Your task to perform on an android device: change the clock display to analog Image 0: 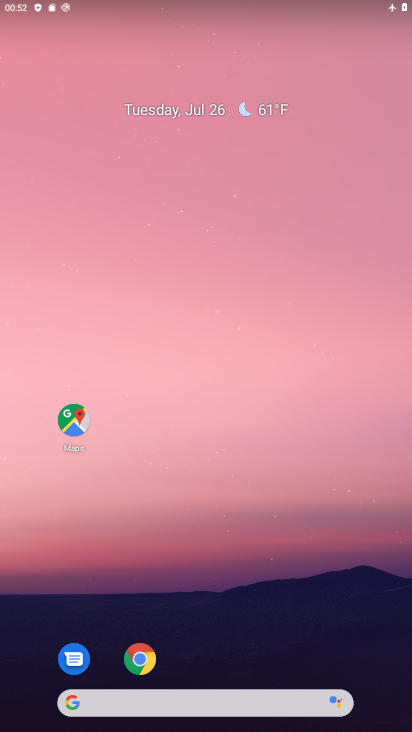
Step 0: drag from (224, 610) to (128, 0)
Your task to perform on an android device: change the clock display to analog Image 1: 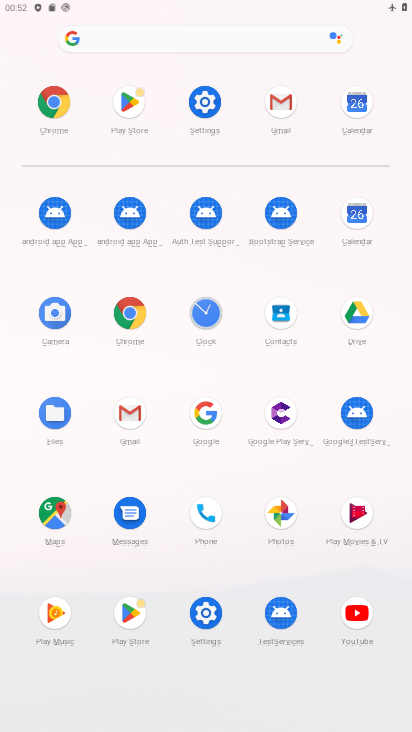
Step 1: click (208, 314)
Your task to perform on an android device: change the clock display to analog Image 2: 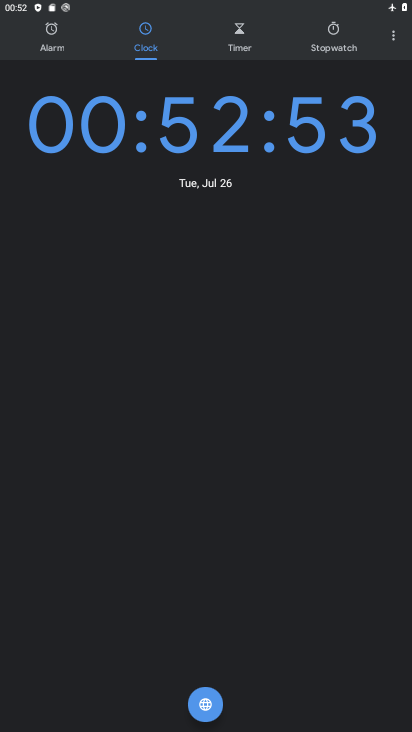
Step 2: click (401, 35)
Your task to perform on an android device: change the clock display to analog Image 3: 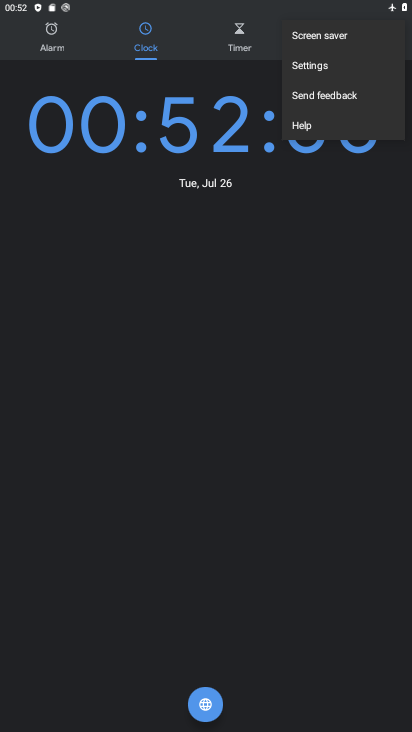
Step 3: click (314, 61)
Your task to perform on an android device: change the clock display to analog Image 4: 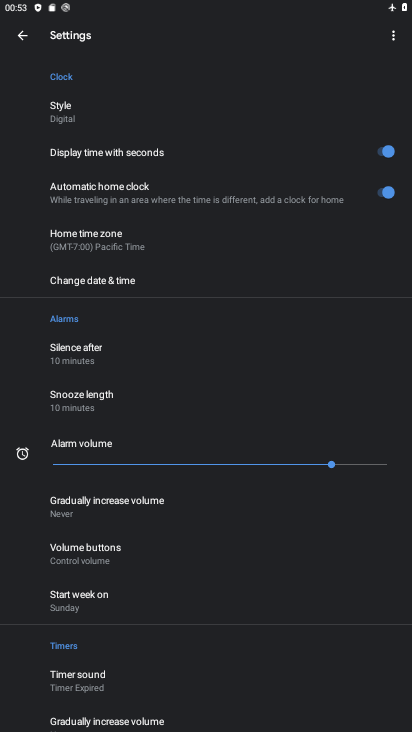
Step 4: click (122, 108)
Your task to perform on an android device: change the clock display to analog Image 5: 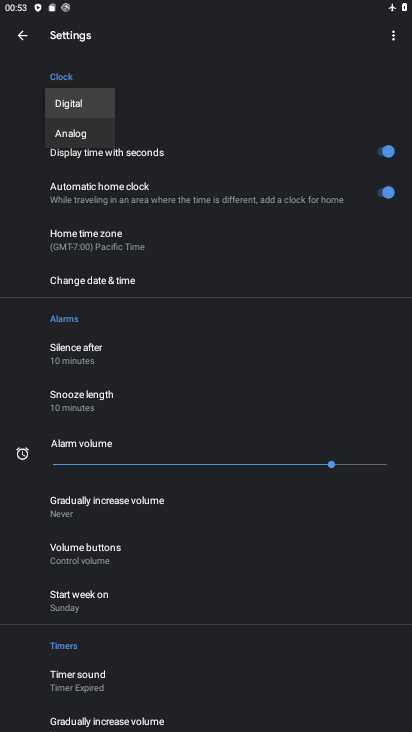
Step 5: click (95, 135)
Your task to perform on an android device: change the clock display to analog Image 6: 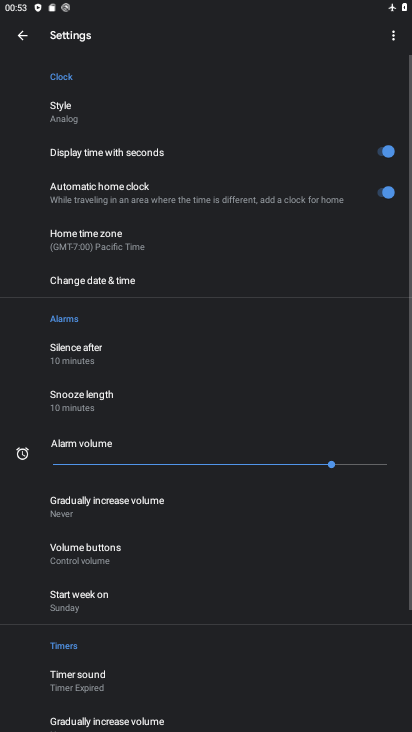
Step 6: task complete